Your task to perform on an android device: toggle improve location accuracy Image 0: 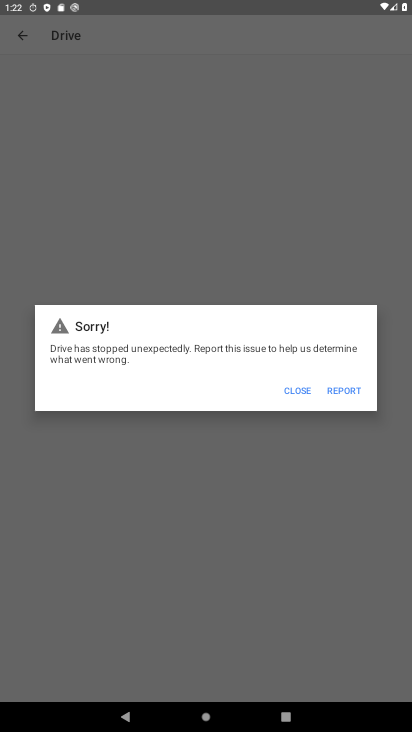
Step 0: press home button
Your task to perform on an android device: toggle improve location accuracy Image 1: 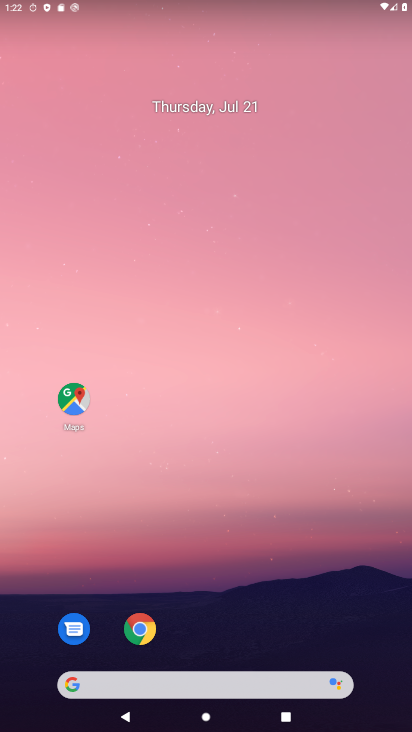
Step 1: drag from (163, 443) to (302, 53)
Your task to perform on an android device: toggle improve location accuracy Image 2: 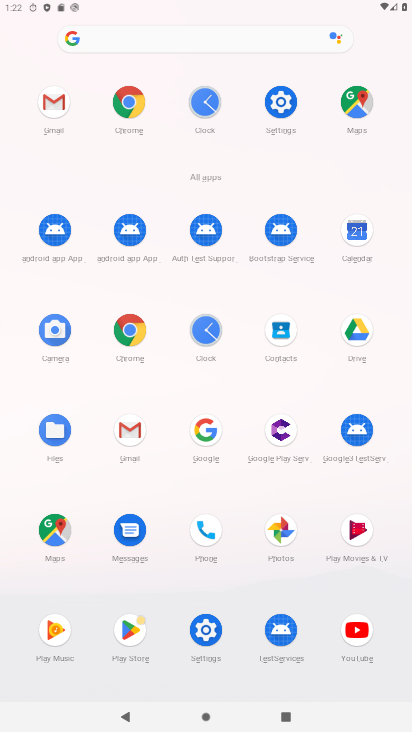
Step 2: click (187, 635)
Your task to perform on an android device: toggle improve location accuracy Image 3: 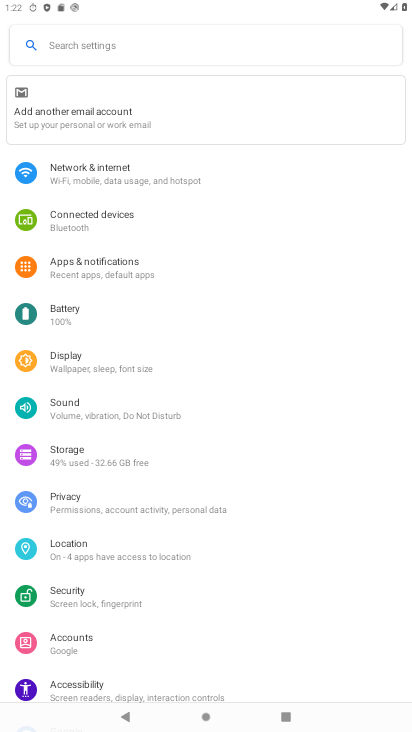
Step 3: click (71, 544)
Your task to perform on an android device: toggle improve location accuracy Image 4: 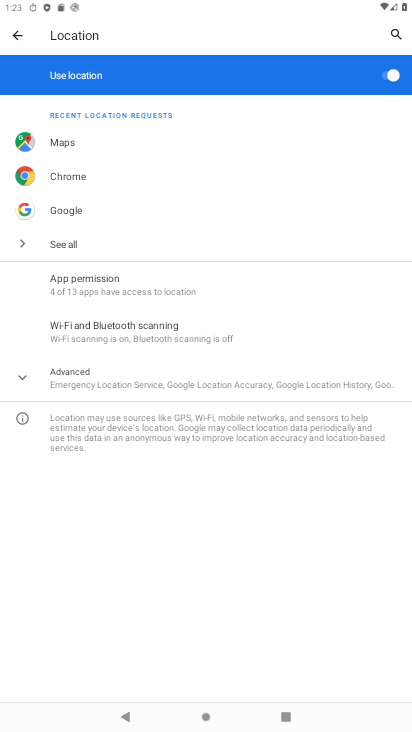
Step 4: click (88, 376)
Your task to perform on an android device: toggle improve location accuracy Image 5: 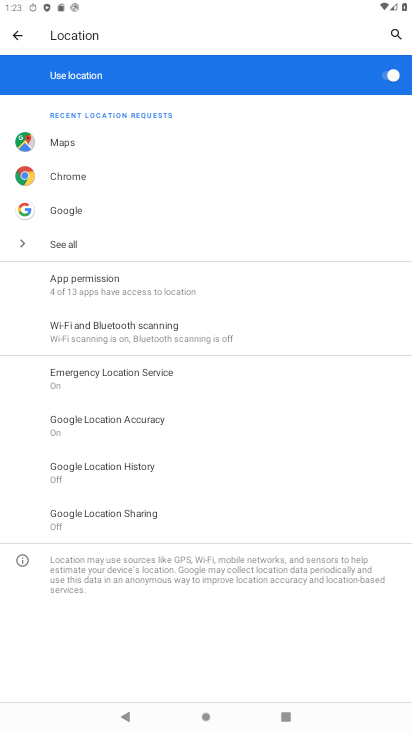
Step 5: task complete